Your task to perform on an android device: Add "macbook air" to the cart on newegg Image 0: 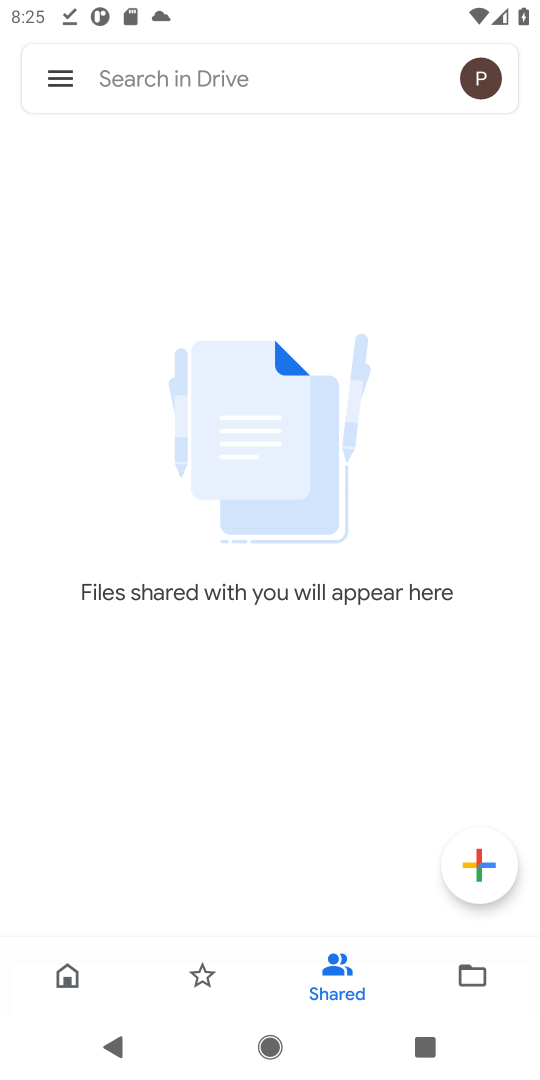
Step 0: press home button
Your task to perform on an android device: Add "macbook air" to the cart on newegg Image 1: 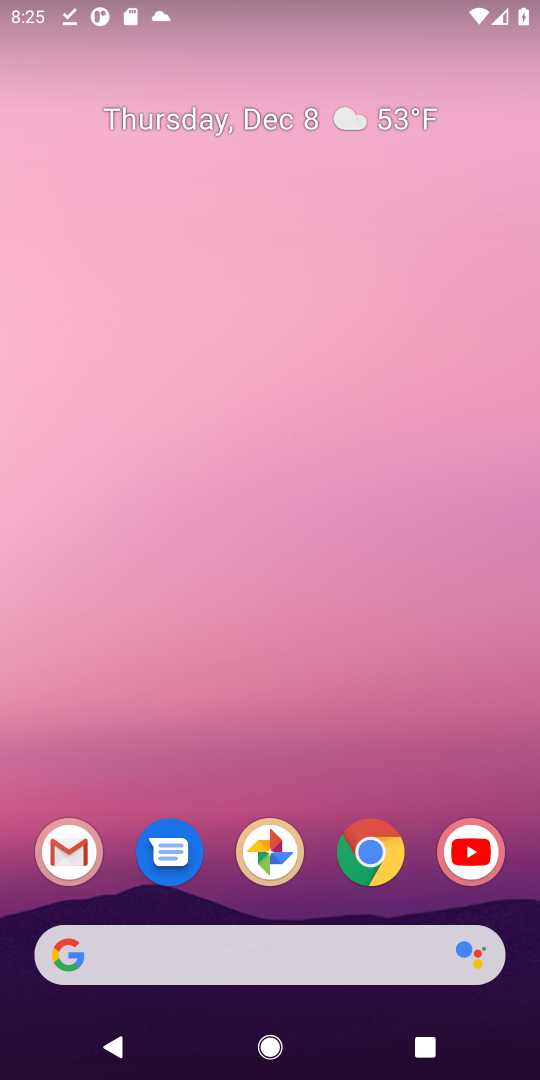
Step 1: click (150, 957)
Your task to perform on an android device: Add "macbook air" to the cart on newegg Image 2: 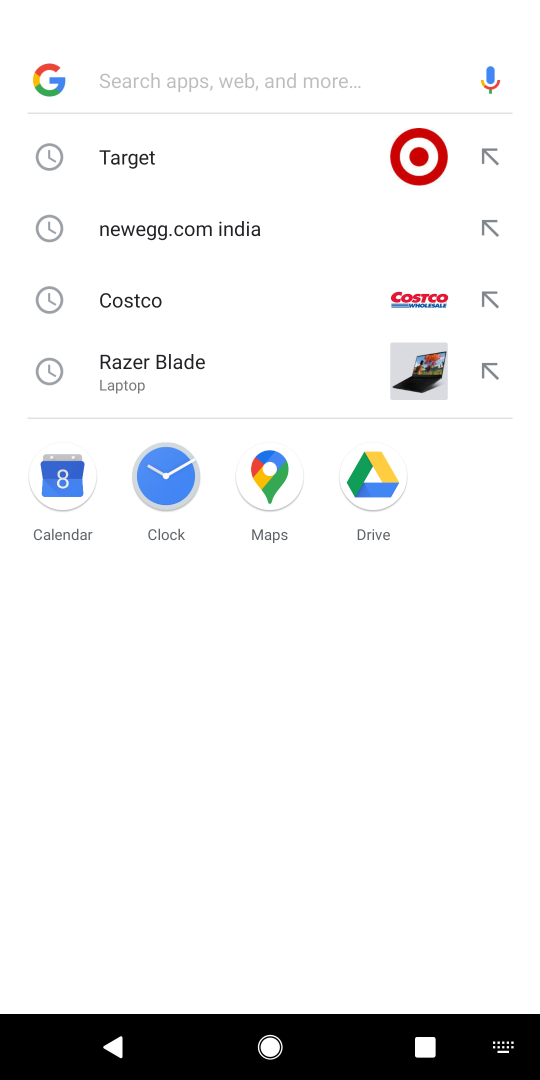
Step 2: type "newegg"
Your task to perform on an android device: Add "macbook air" to the cart on newegg Image 3: 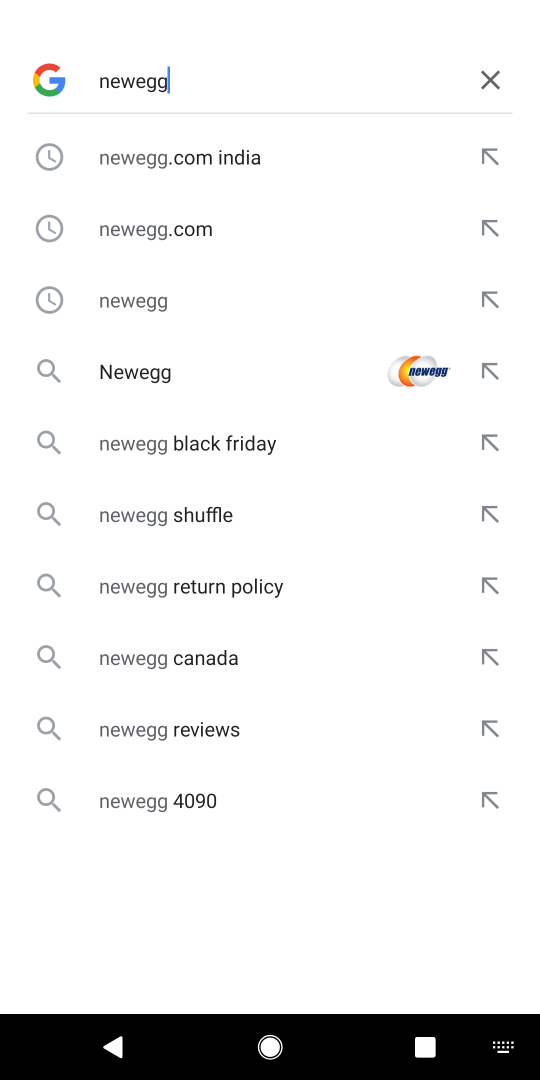
Step 3: click (132, 248)
Your task to perform on an android device: Add "macbook air" to the cart on newegg Image 4: 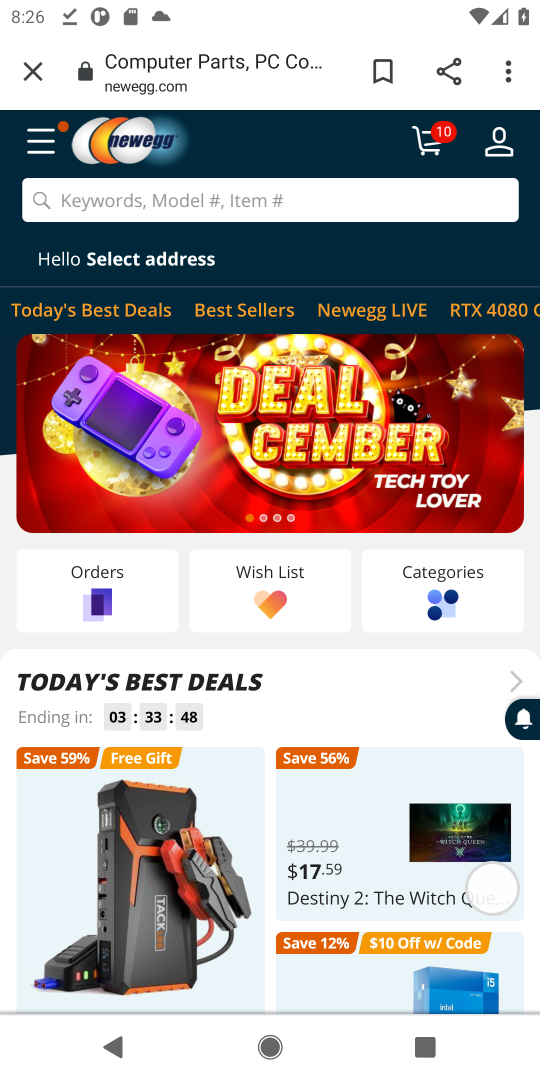
Step 4: click (152, 210)
Your task to perform on an android device: Add "macbook air" to the cart on newegg Image 5: 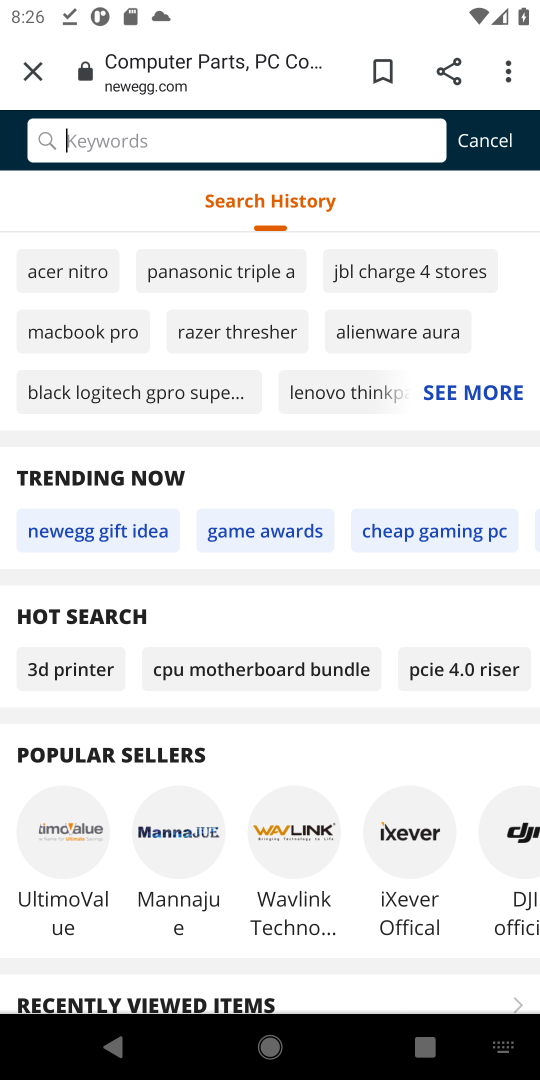
Step 5: type "macbook air"
Your task to perform on an android device: Add "macbook air" to the cart on newegg Image 6: 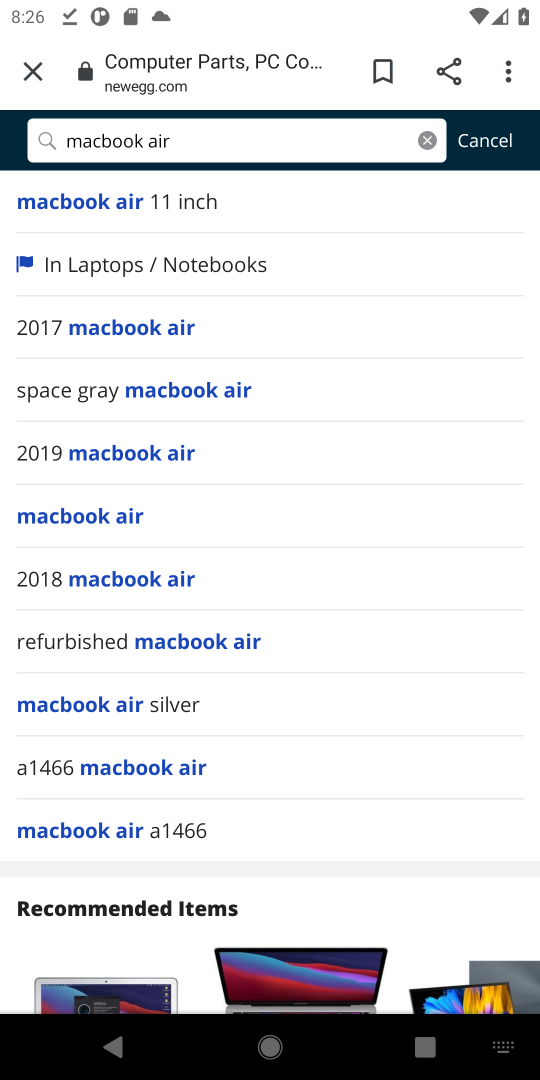
Step 6: click (81, 218)
Your task to perform on an android device: Add "macbook air" to the cart on newegg Image 7: 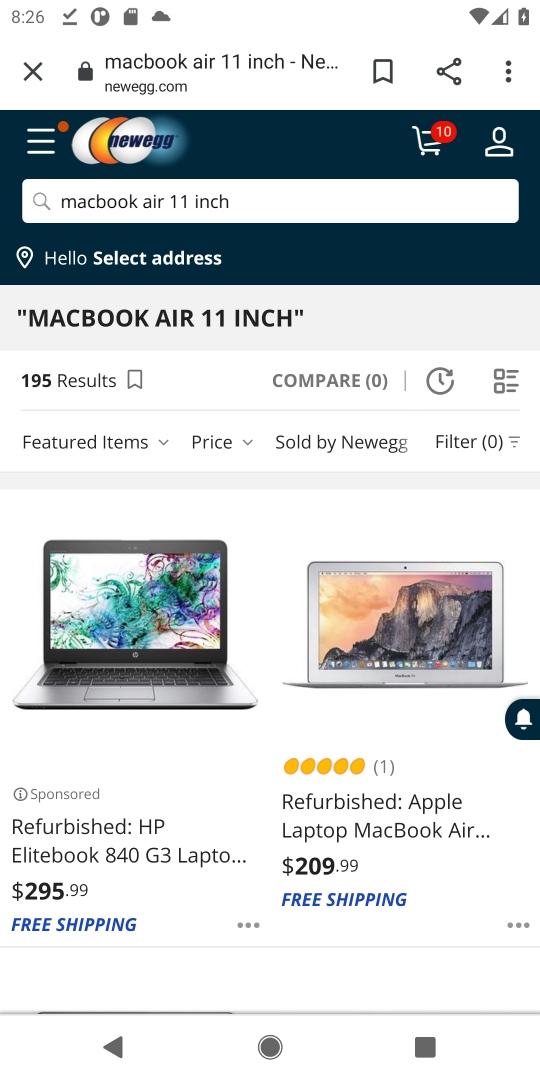
Step 7: task complete